Your task to perform on an android device: Open Reddit.com Image 0: 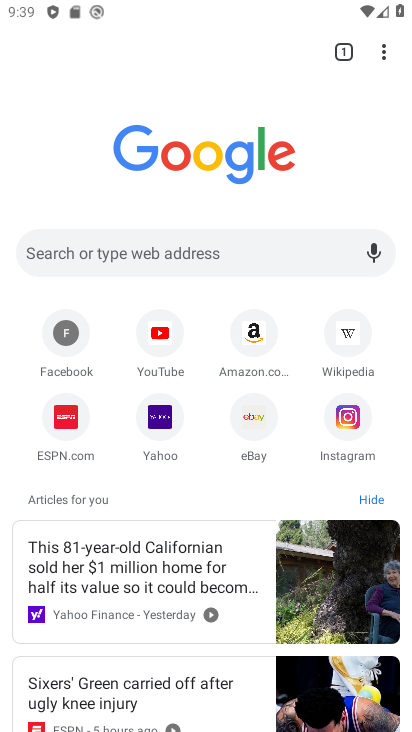
Step 0: click (184, 250)
Your task to perform on an android device: Open Reddit.com Image 1: 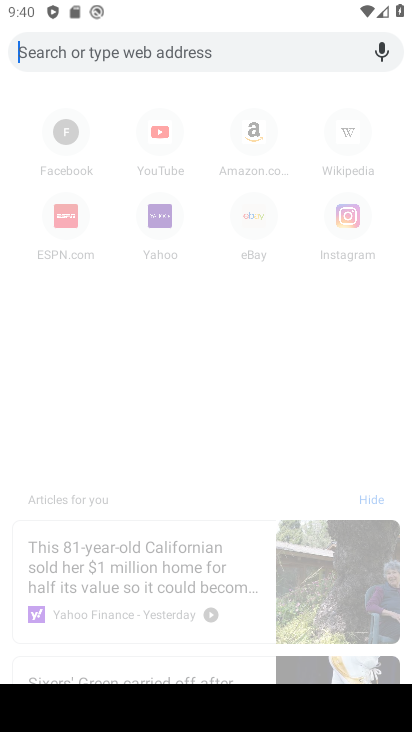
Step 1: type "Reddit.com"
Your task to perform on an android device: Open Reddit.com Image 2: 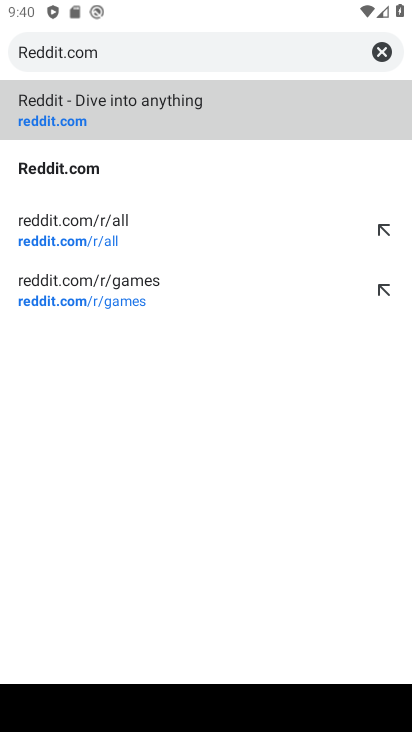
Step 2: click (85, 106)
Your task to perform on an android device: Open Reddit.com Image 3: 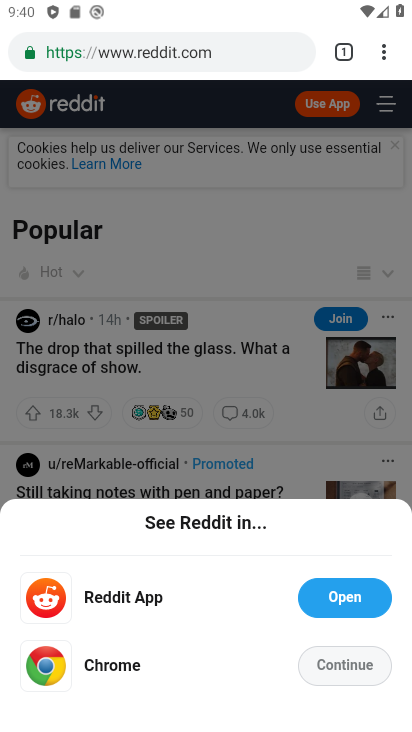
Step 3: task complete